Your task to perform on an android device: Search for pizza restaurants on Maps Image 0: 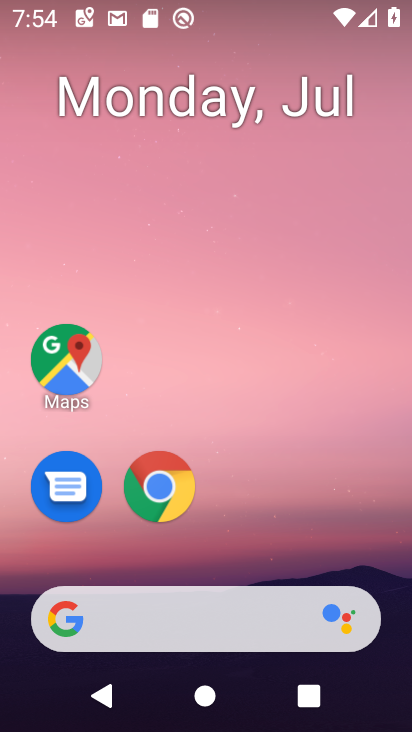
Step 0: drag from (375, 573) to (375, 162)
Your task to perform on an android device: Search for pizza restaurants on Maps Image 1: 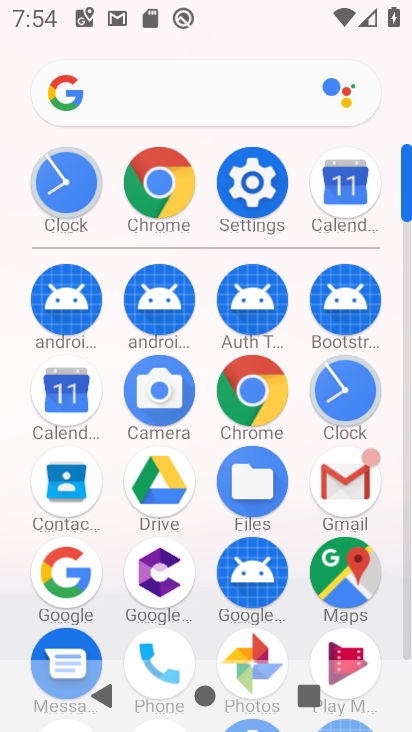
Step 1: click (348, 570)
Your task to perform on an android device: Search for pizza restaurants on Maps Image 2: 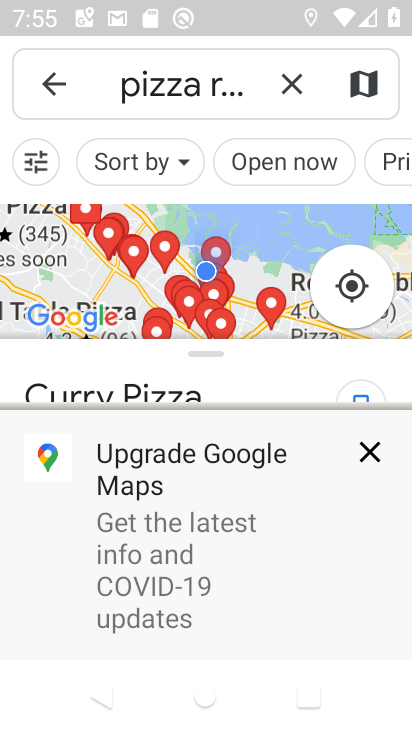
Step 2: task complete